Your task to perform on an android device: delete browsing data in the chrome app Image 0: 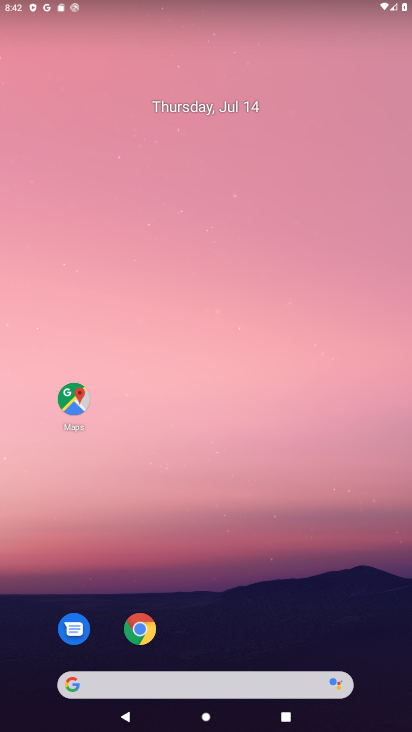
Step 0: drag from (238, 509) to (195, 66)
Your task to perform on an android device: delete browsing data in the chrome app Image 1: 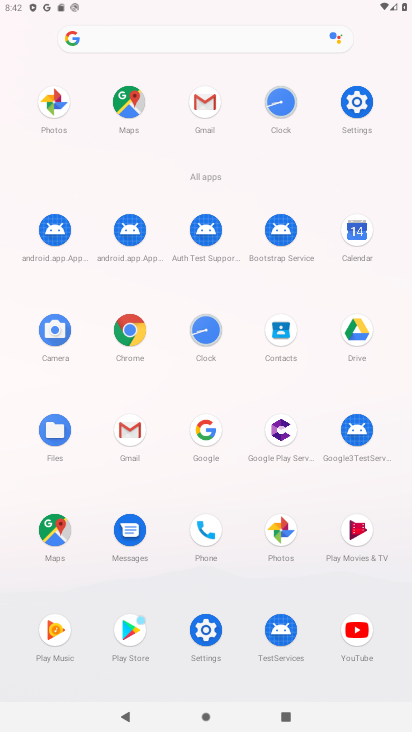
Step 1: click (139, 328)
Your task to perform on an android device: delete browsing data in the chrome app Image 2: 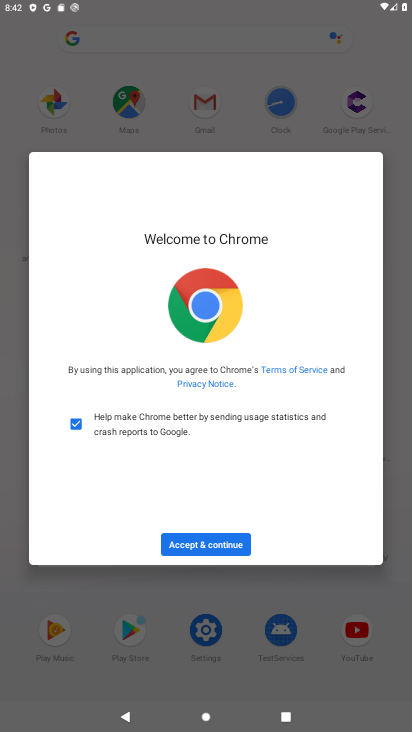
Step 2: click (183, 548)
Your task to perform on an android device: delete browsing data in the chrome app Image 3: 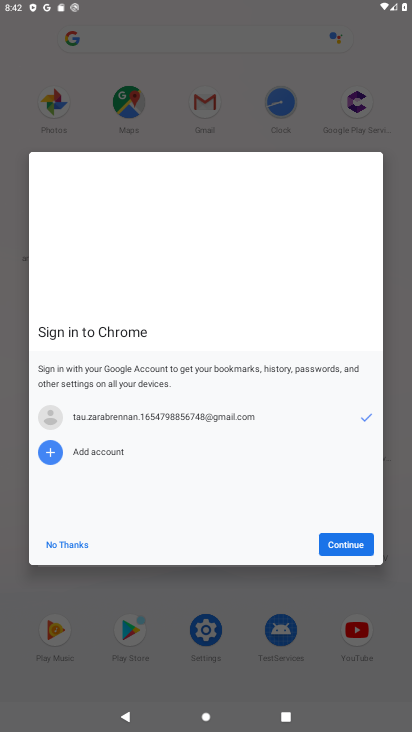
Step 3: click (354, 546)
Your task to perform on an android device: delete browsing data in the chrome app Image 4: 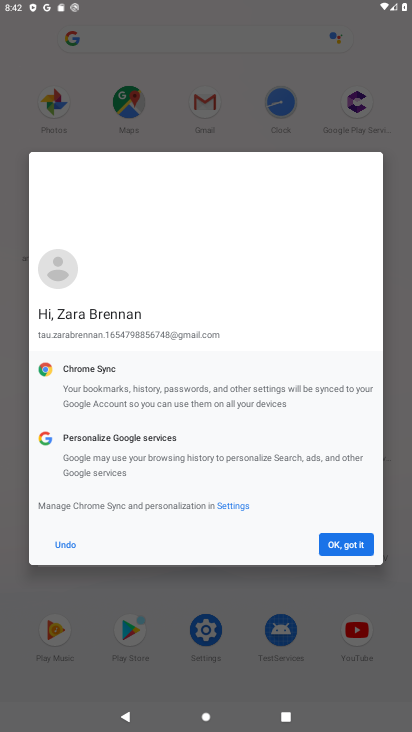
Step 4: click (354, 546)
Your task to perform on an android device: delete browsing data in the chrome app Image 5: 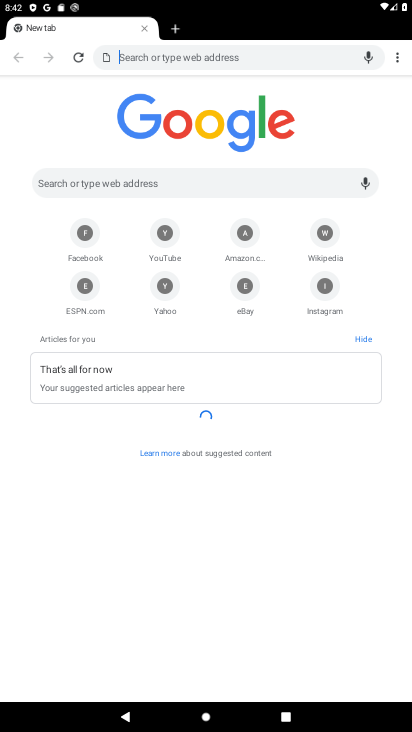
Step 5: drag from (402, 59) to (299, 255)
Your task to perform on an android device: delete browsing data in the chrome app Image 6: 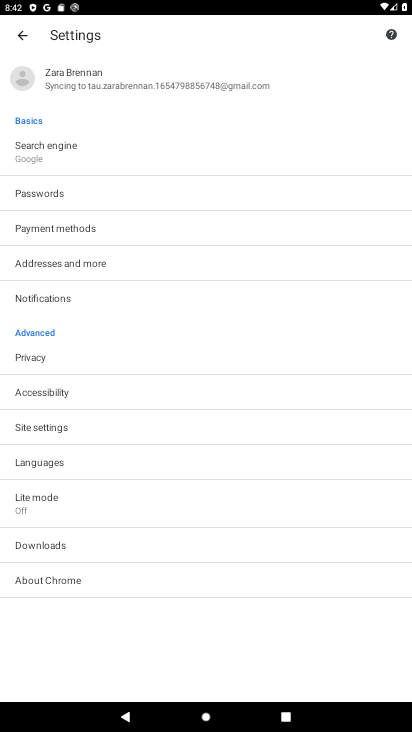
Step 6: click (32, 357)
Your task to perform on an android device: delete browsing data in the chrome app Image 7: 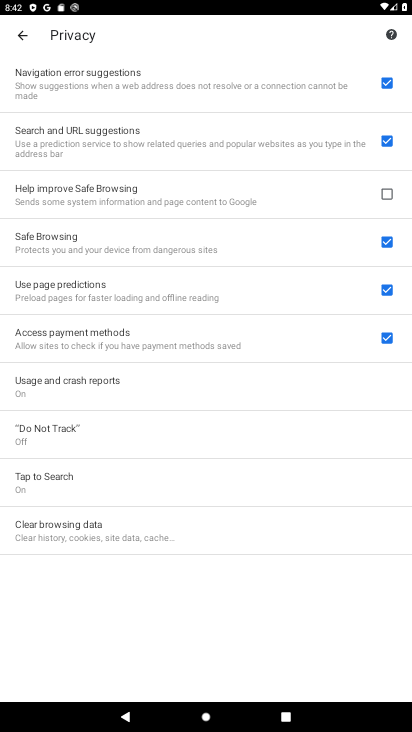
Step 7: click (79, 522)
Your task to perform on an android device: delete browsing data in the chrome app Image 8: 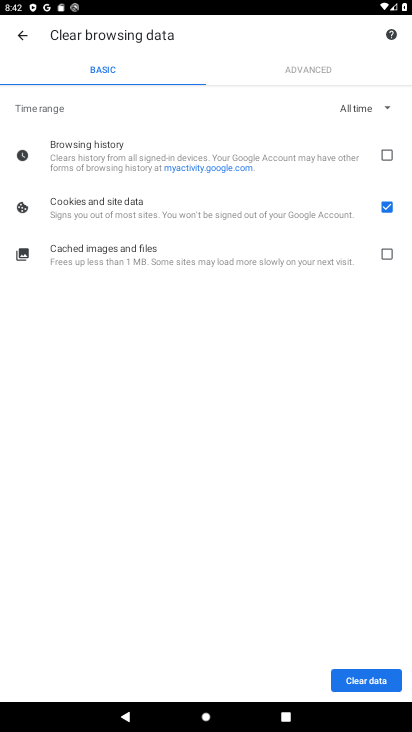
Step 8: click (380, 142)
Your task to perform on an android device: delete browsing data in the chrome app Image 9: 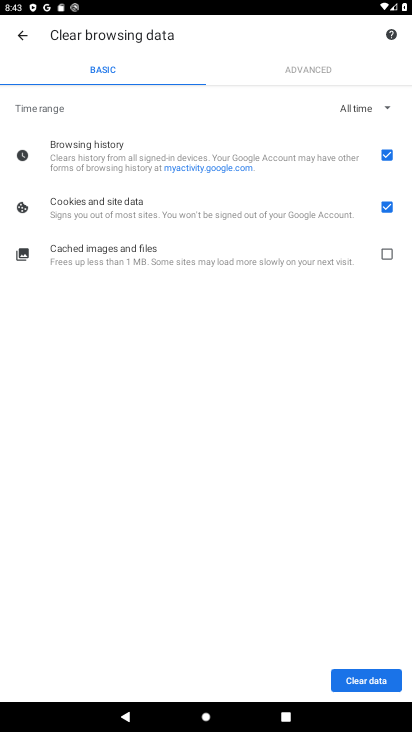
Step 9: click (348, 675)
Your task to perform on an android device: delete browsing data in the chrome app Image 10: 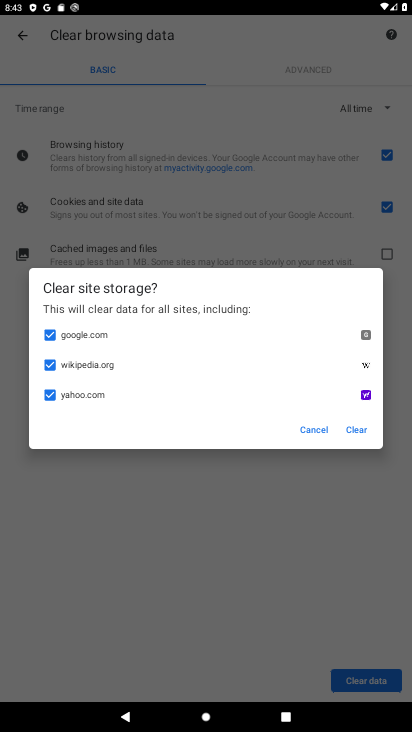
Step 10: click (342, 424)
Your task to perform on an android device: delete browsing data in the chrome app Image 11: 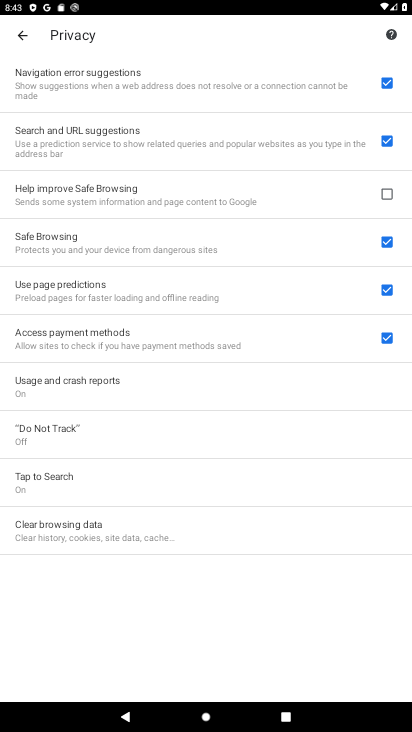
Step 11: task complete